Your task to perform on an android device: Search for pizza restaurants on Maps Image 0: 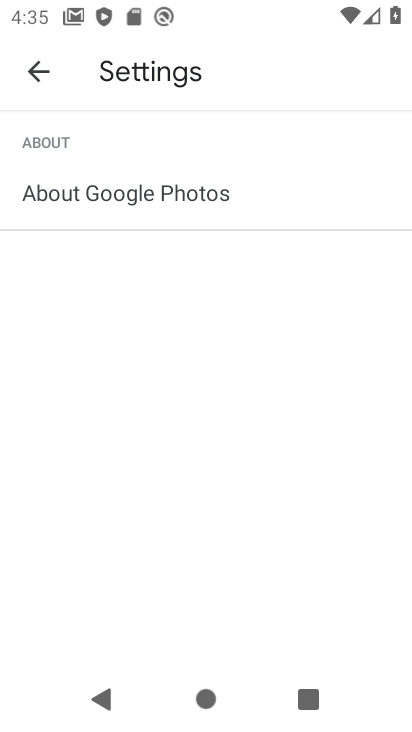
Step 0: press home button
Your task to perform on an android device: Search for pizza restaurants on Maps Image 1: 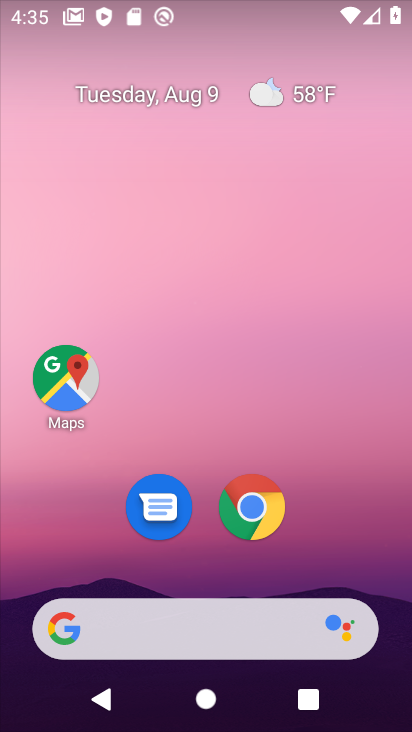
Step 1: click (61, 384)
Your task to perform on an android device: Search for pizza restaurants on Maps Image 2: 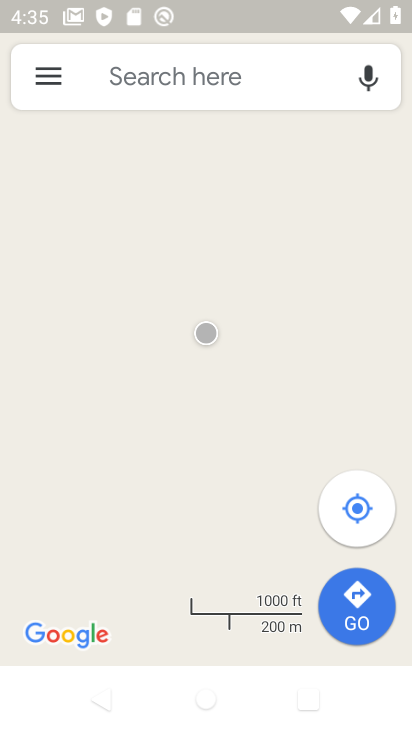
Step 2: click (202, 64)
Your task to perform on an android device: Search for pizza restaurants on Maps Image 3: 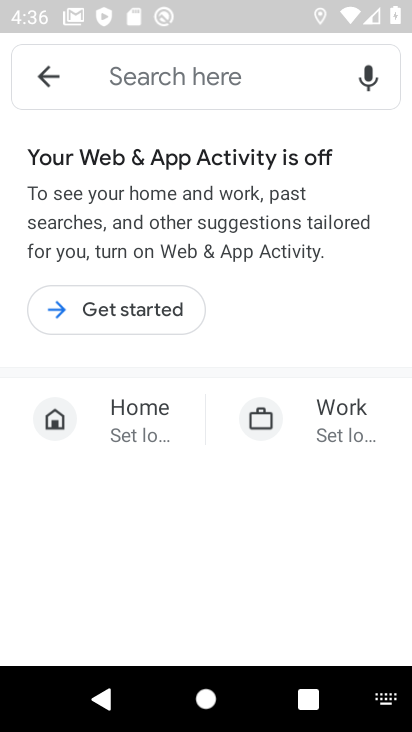
Step 3: type "pizza restaurants"
Your task to perform on an android device: Search for pizza restaurants on Maps Image 4: 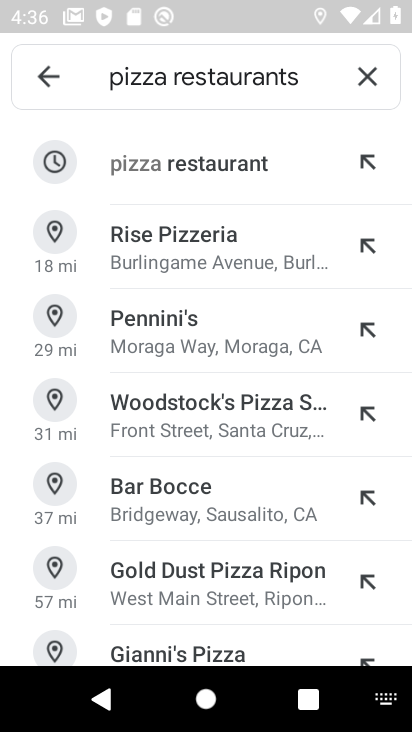
Step 4: click (220, 166)
Your task to perform on an android device: Search for pizza restaurants on Maps Image 5: 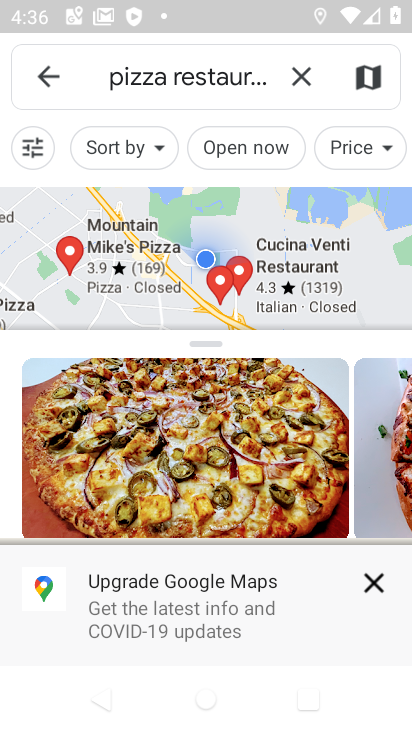
Step 5: task complete